Your task to perform on an android device: turn on translation in the chrome app Image 0: 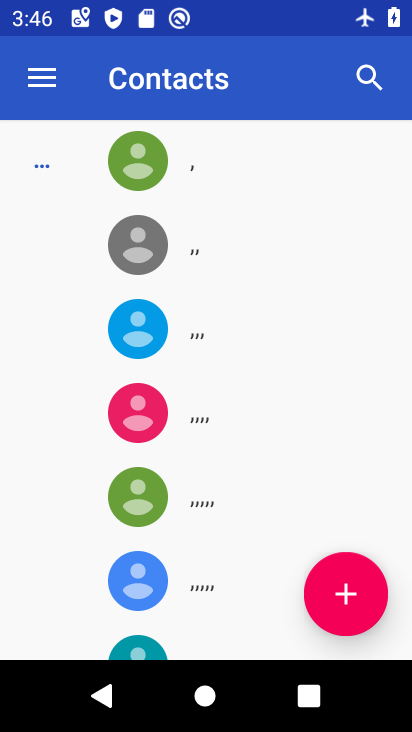
Step 0: press back button
Your task to perform on an android device: turn on translation in the chrome app Image 1: 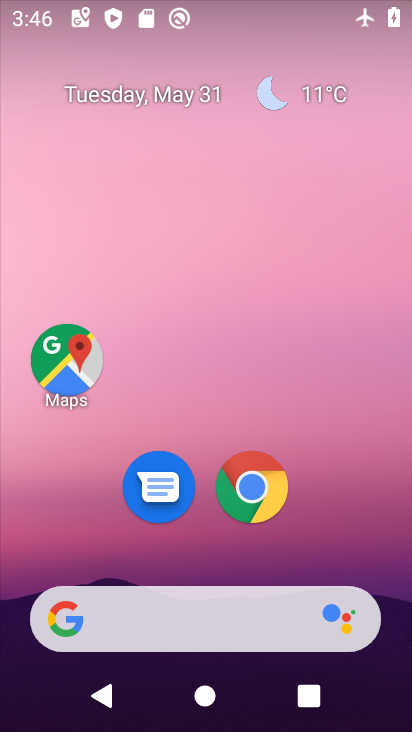
Step 1: click (252, 482)
Your task to perform on an android device: turn on translation in the chrome app Image 2: 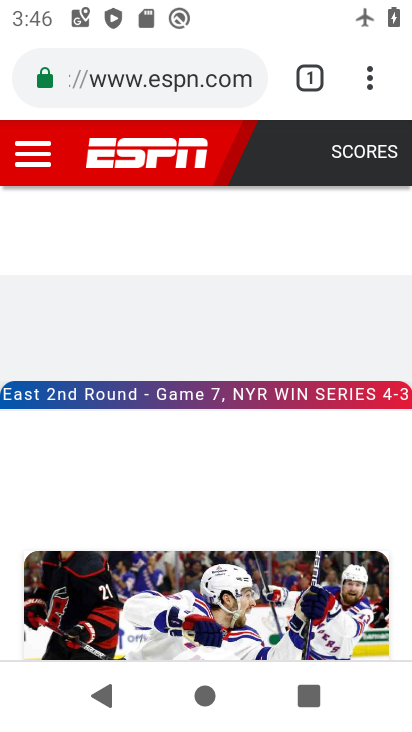
Step 2: click (369, 76)
Your task to perform on an android device: turn on translation in the chrome app Image 3: 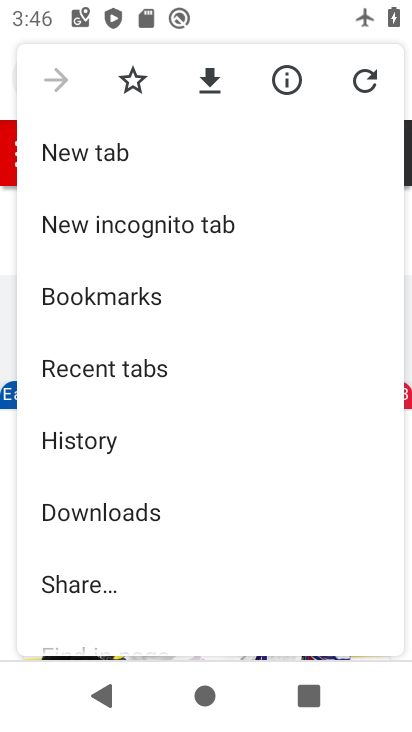
Step 3: drag from (158, 466) to (197, 353)
Your task to perform on an android device: turn on translation in the chrome app Image 4: 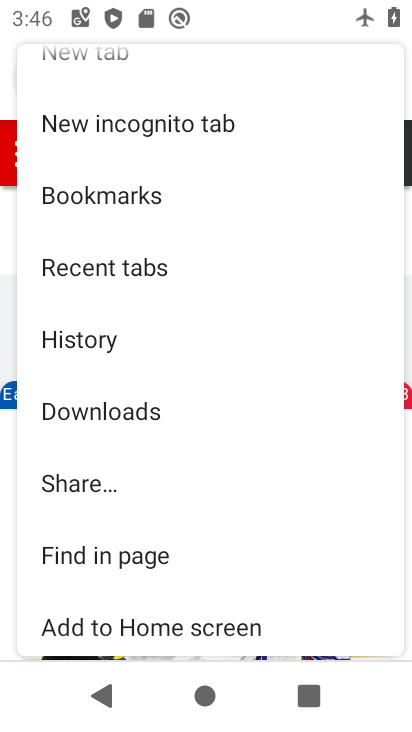
Step 4: drag from (124, 457) to (185, 362)
Your task to perform on an android device: turn on translation in the chrome app Image 5: 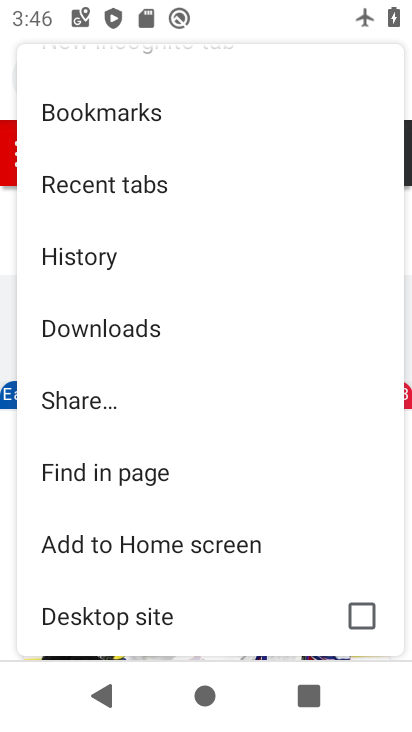
Step 5: drag from (133, 511) to (200, 403)
Your task to perform on an android device: turn on translation in the chrome app Image 6: 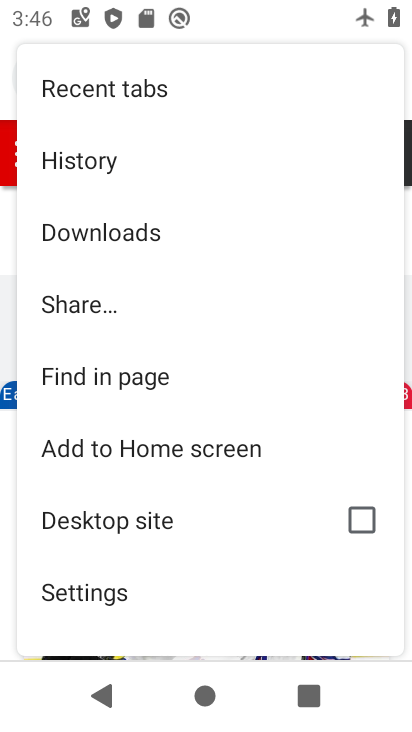
Step 6: drag from (113, 544) to (213, 430)
Your task to perform on an android device: turn on translation in the chrome app Image 7: 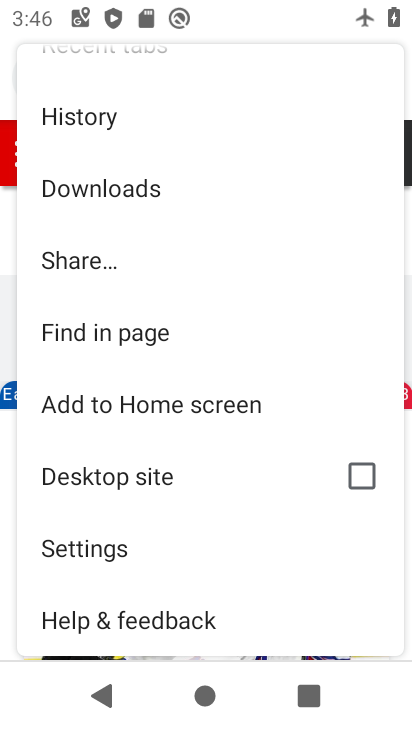
Step 7: click (105, 546)
Your task to perform on an android device: turn on translation in the chrome app Image 8: 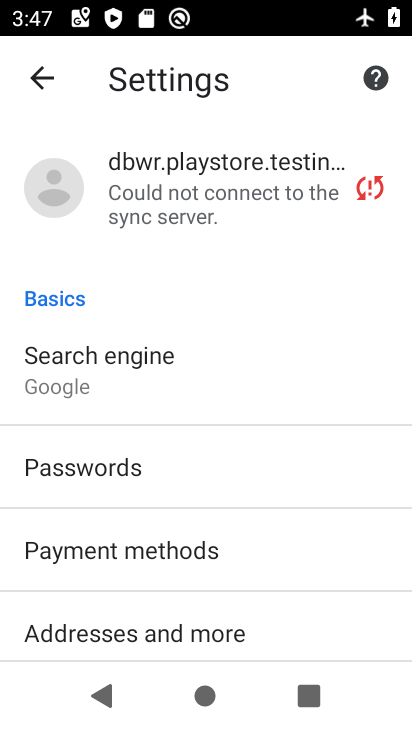
Step 8: drag from (106, 566) to (178, 464)
Your task to perform on an android device: turn on translation in the chrome app Image 9: 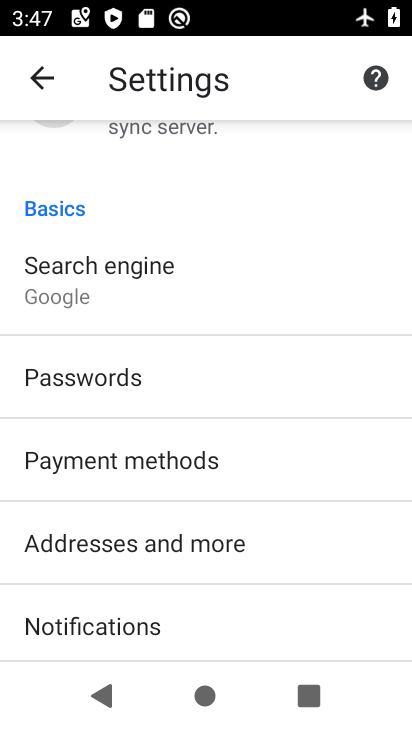
Step 9: drag from (114, 572) to (187, 482)
Your task to perform on an android device: turn on translation in the chrome app Image 10: 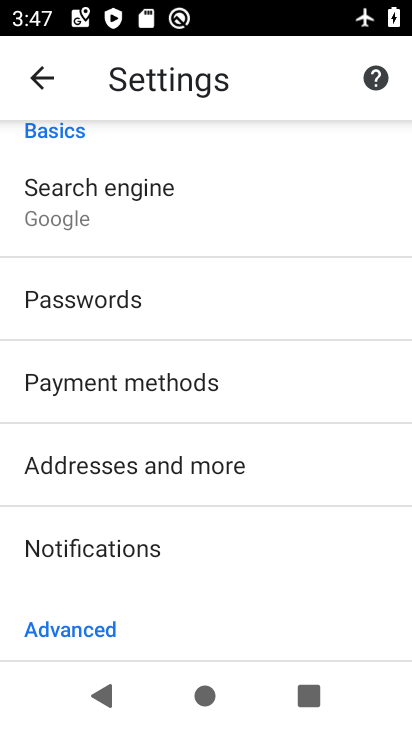
Step 10: drag from (105, 593) to (209, 464)
Your task to perform on an android device: turn on translation in the chrome app Image 11: 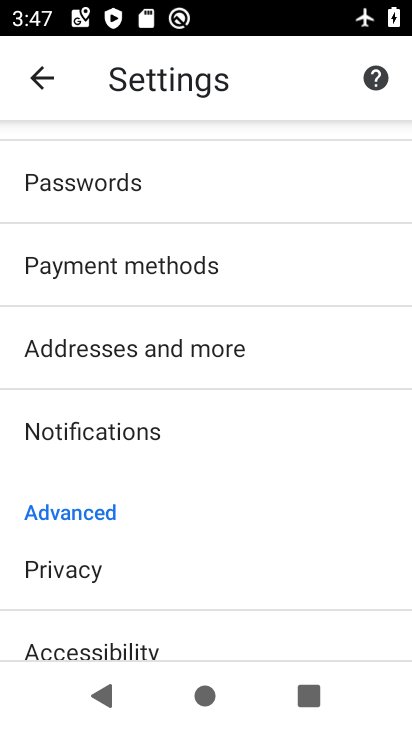
Step 11: drag from (91, 482) to (180, 377)
Your task to perform on an android device: turn on translation in the chrome app Image 12: 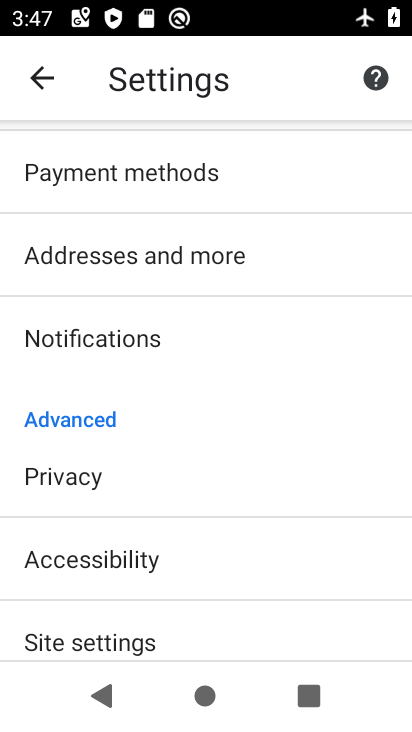
Step 12: drag from (122, 387) to (211, 278)
Your task to perform on an android device: turn on translation in the chrome app Image 13: 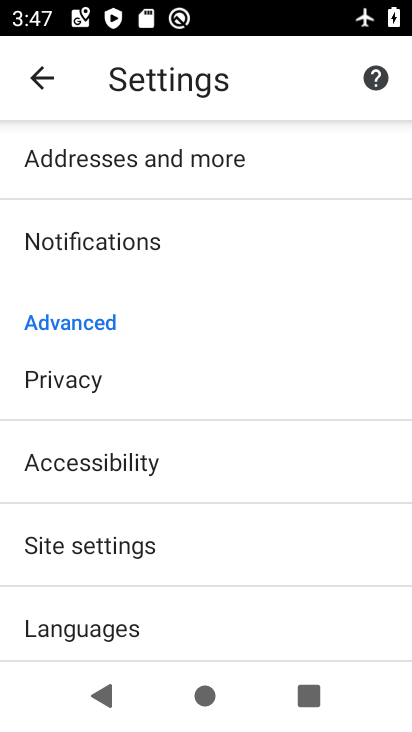
Step 13: click (90, 620)
Your task to perform on an android device: turn on translation in the chrome app Image 14: 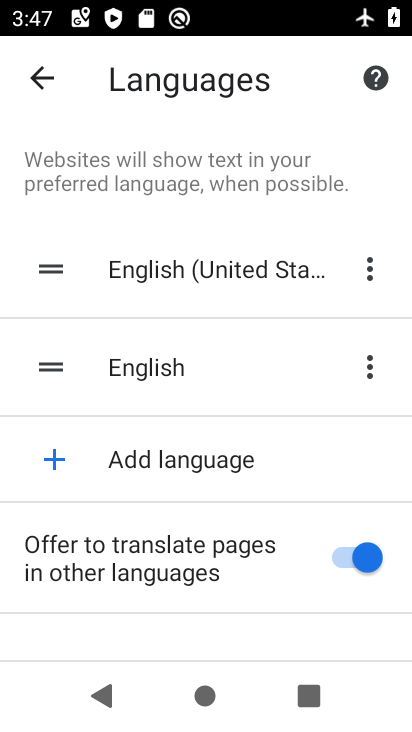
Step 14: task complete